Your task to perform on an android device: open app "ZOOM Cloud Meetings" Image 0: 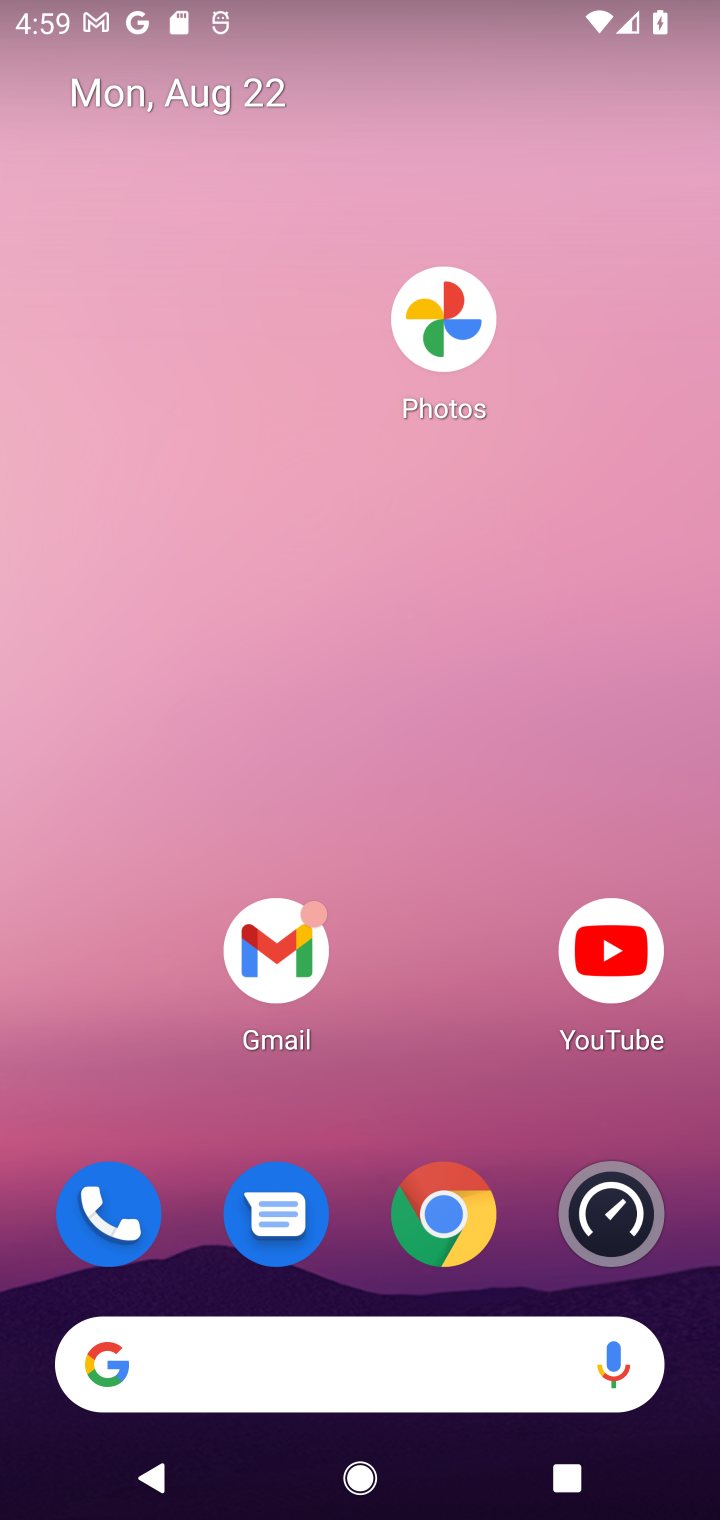
Step 0: drag from (535, 1281) to (458, 161)
Your task to perform on an android device: open app "ZOOM Cloud Meetings" Image 1: 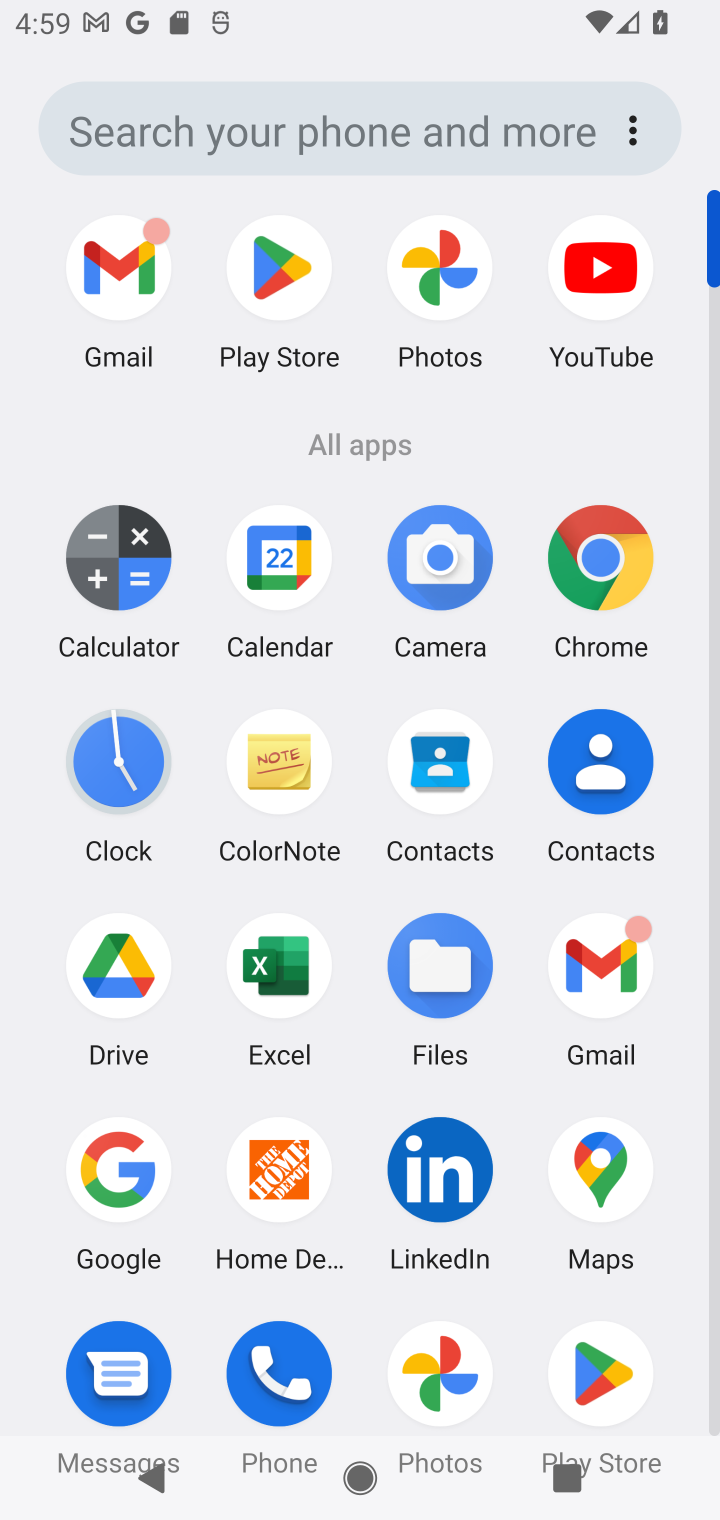
Step 1: click (597, 1377)
Your task to perform on an android device: open app "ZOOM Cloud Meetings" Image 2: 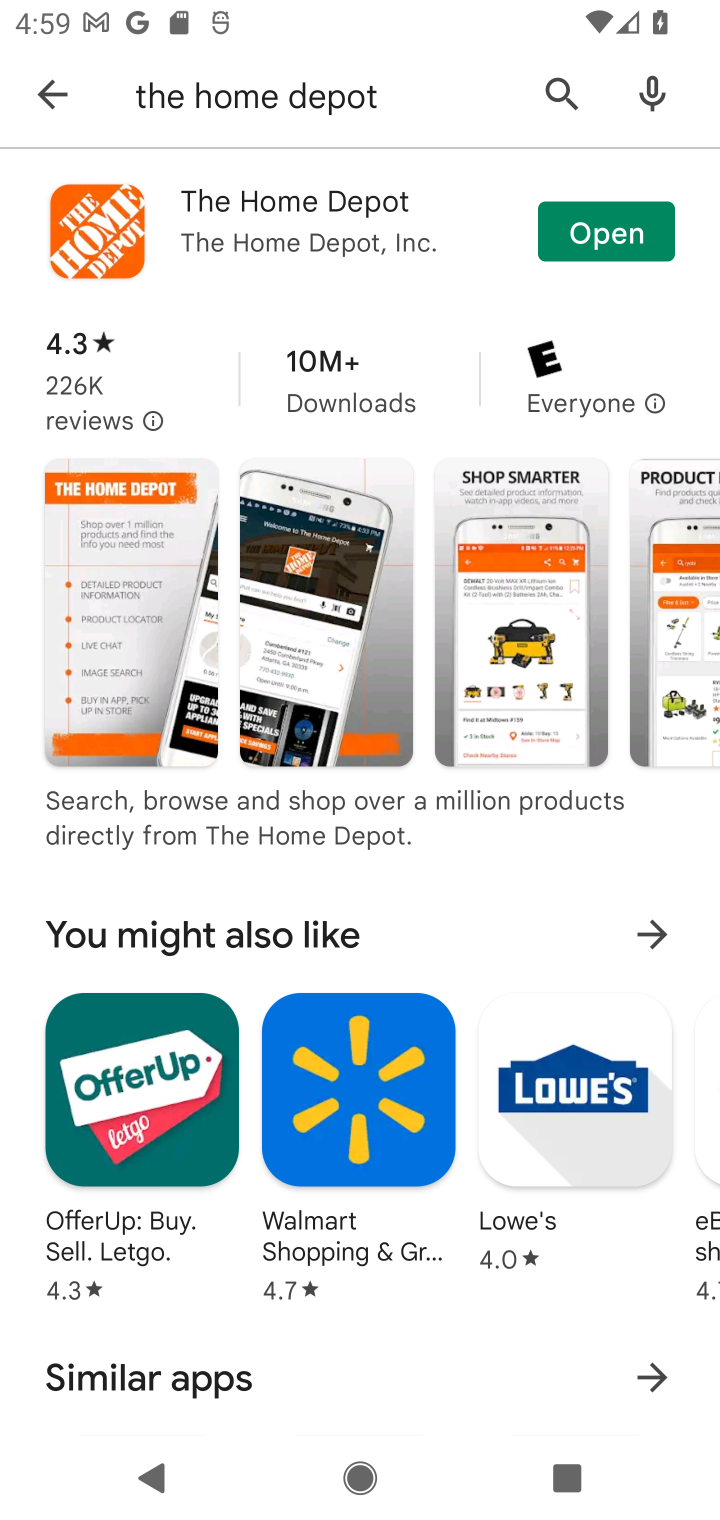
Step 2: click (545, 88)
Your task to perform on an android device: open app "ZOOM Cloud Meetings" Image 3: 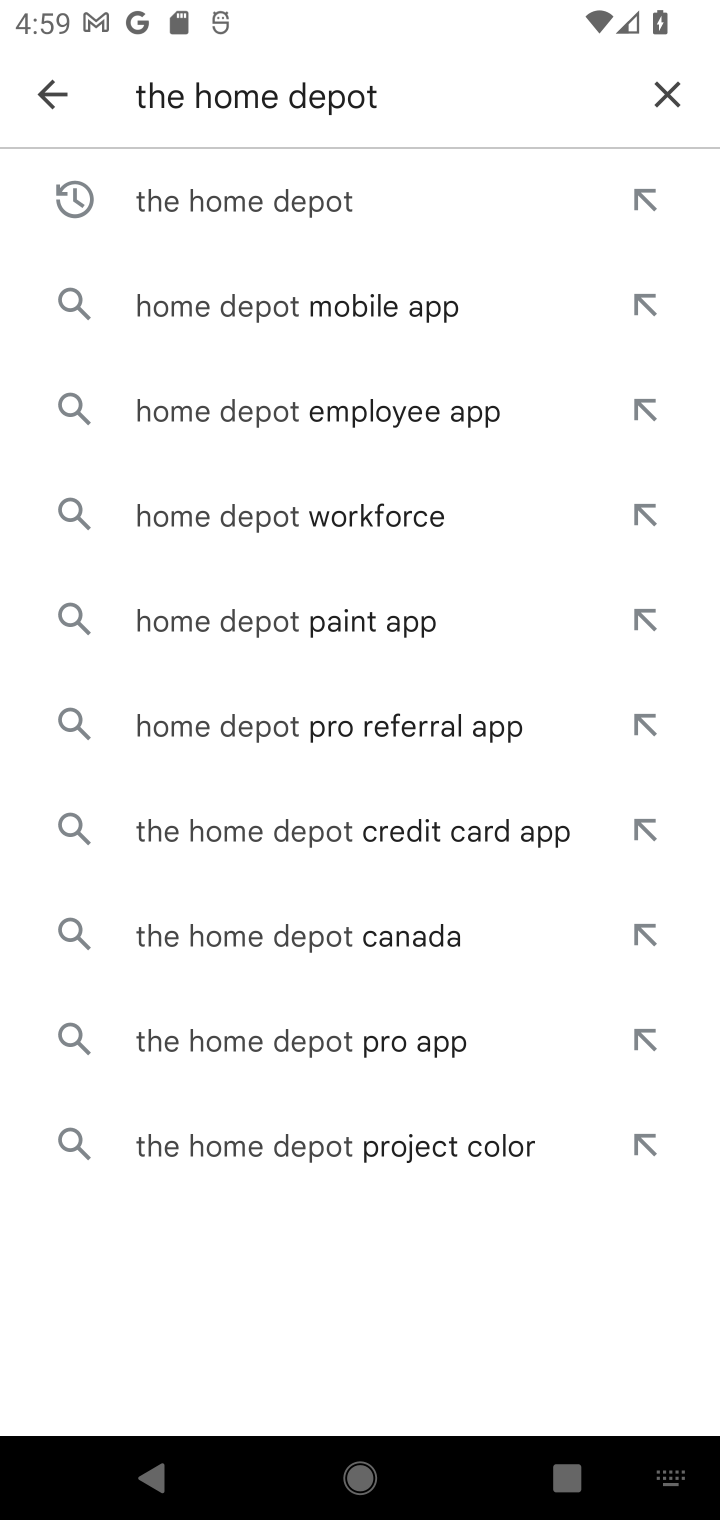
Step 3: click (665, 100)
Your task to perform on an android device: open app "ZOOM Cloud Meetings" Image 4: 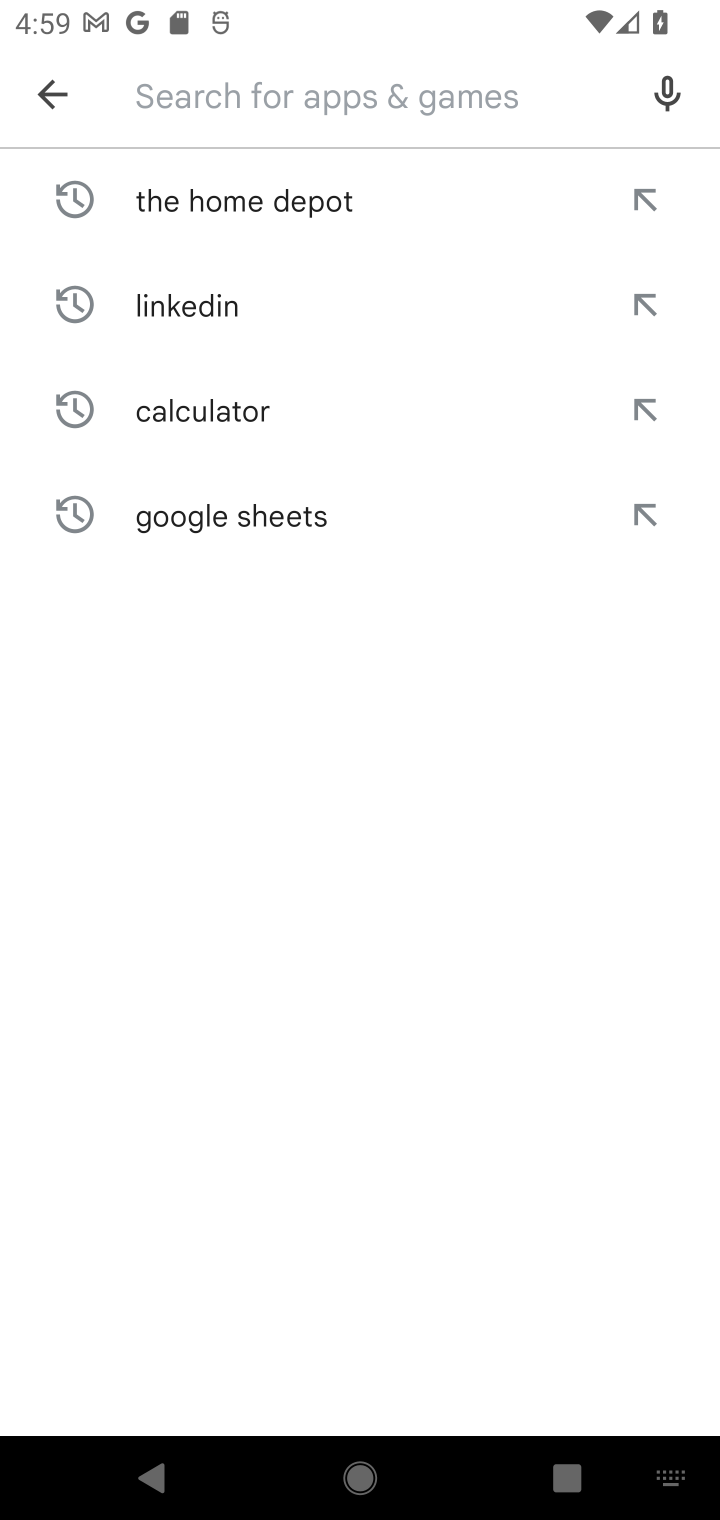
Step 4: type "Zoom cloud meetings"
Your task to perform on an android device: open app "ZOOM Cloud Meetings" Image 5: 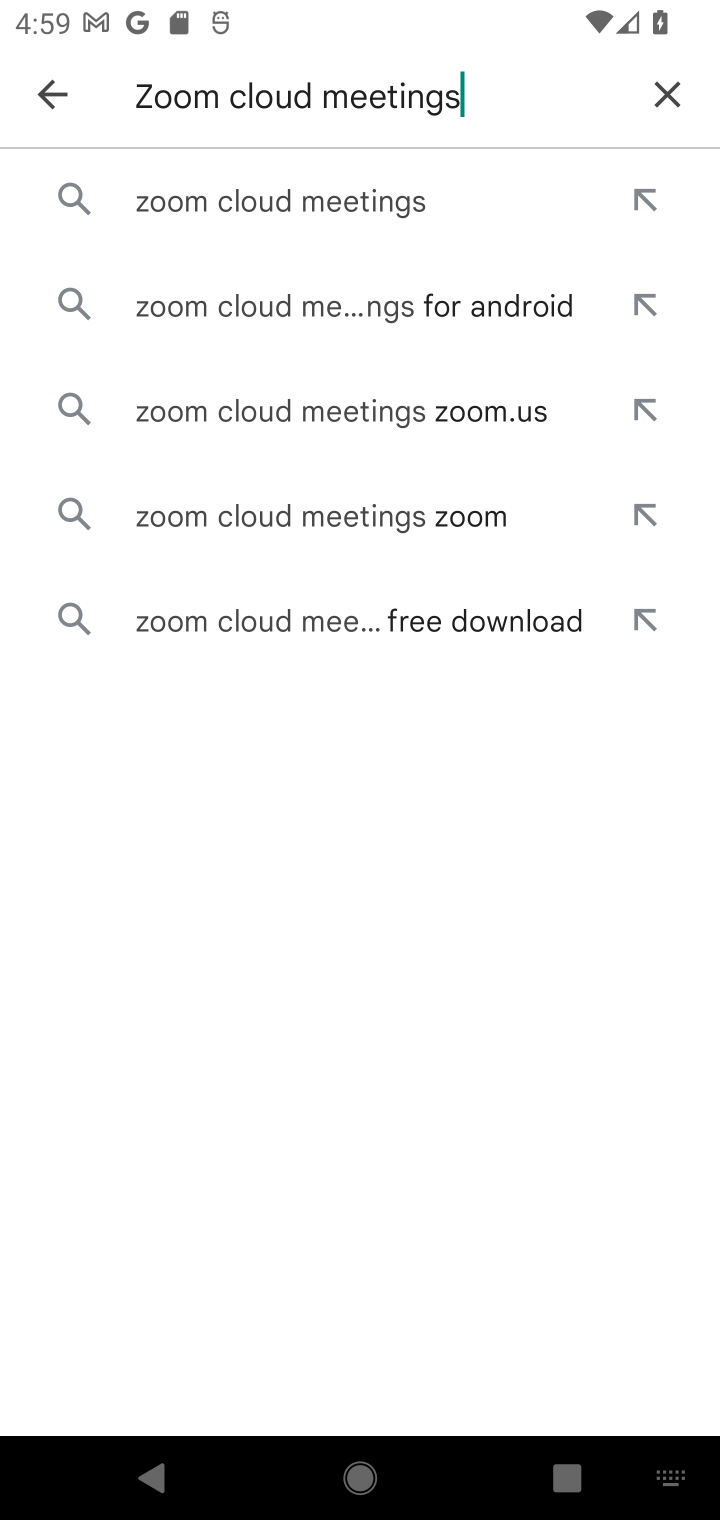
Step 5: click (298, 182)
Your task to perform on an android device: open app "ZOOM Cloud Meetings" Image 6: 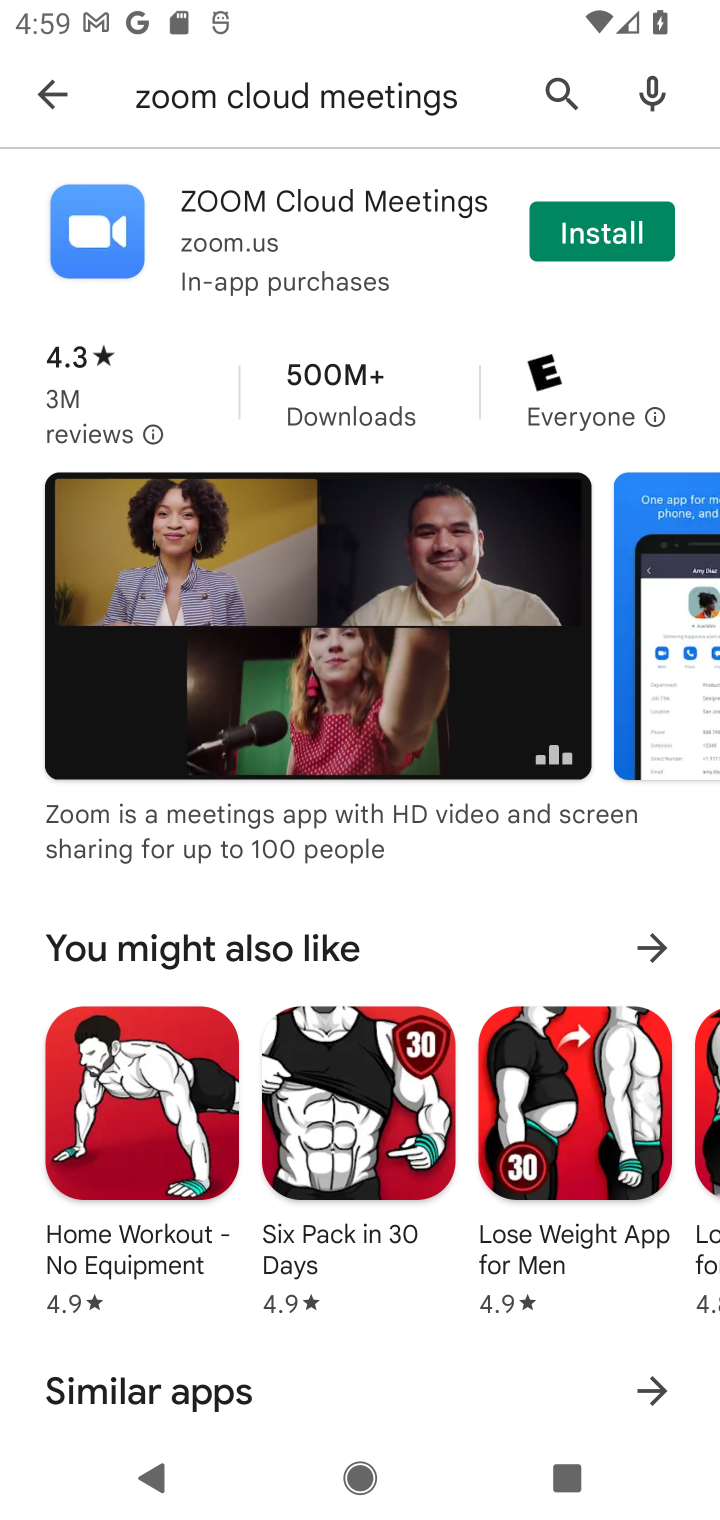
Step 6: task complete